Your task to perform on an android device: turn notification dots on Image 0: 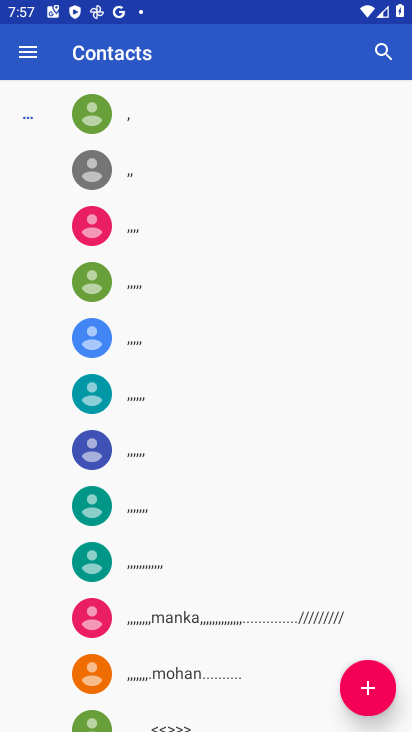
Step 0: press home button
Your task to perform on an android device: turn notification dots on Image 1: 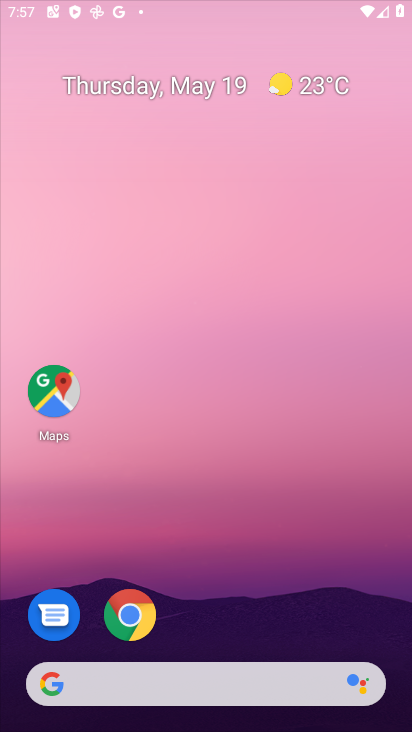
Step 1: drag from (348, 608) to (328, 38)
Your task to perform on an android device: turn notification dots on Image 2: 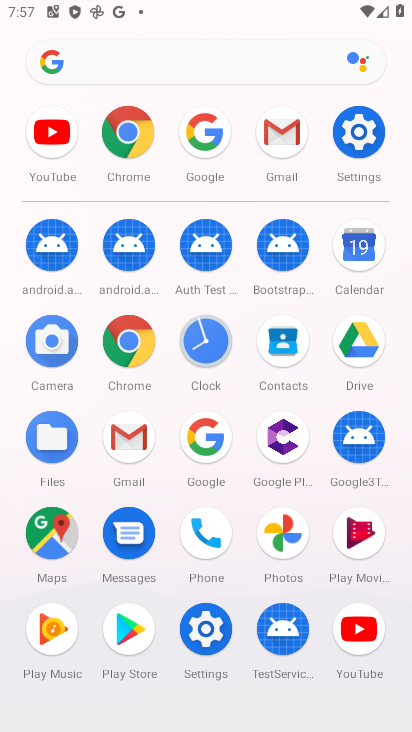
Step 2: click (363, 122)
Your task to perform on an android device: turn notification dots on Image 3: 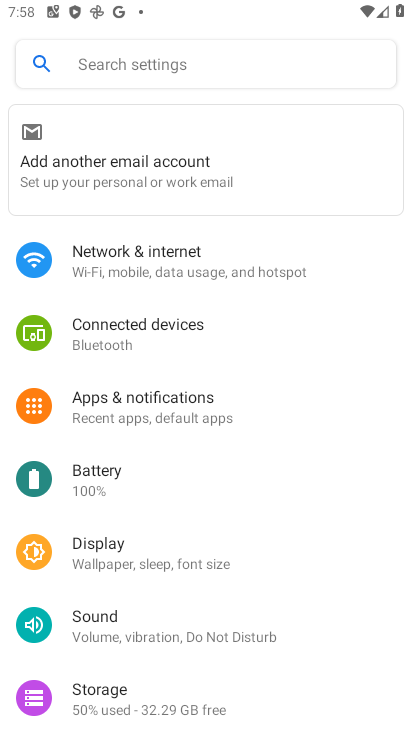
Step 3: click (193, 404)
Your task to perform on an android device: turn notification dots on Image 4: 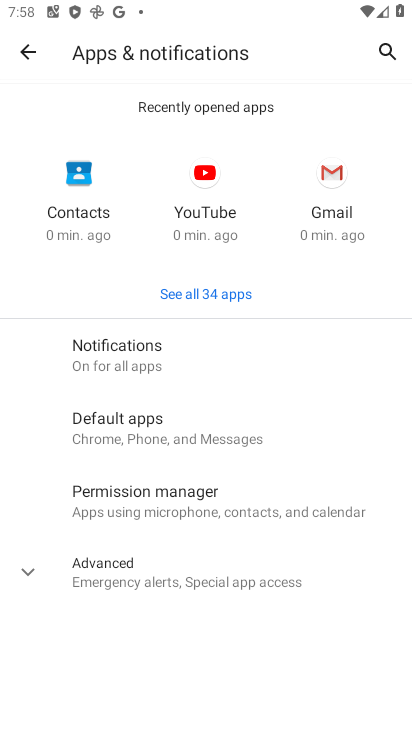
Step 4: click (181, 355)
Your task to perform on an android device: turn notification dots on Image 5: 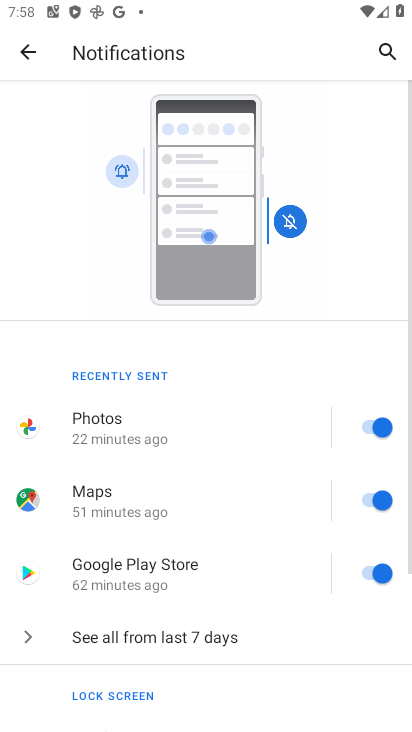
Step 5: drag from (172, 674) to (230, 173)
Your task to perform on an android device: turn notification dots on Image 6: 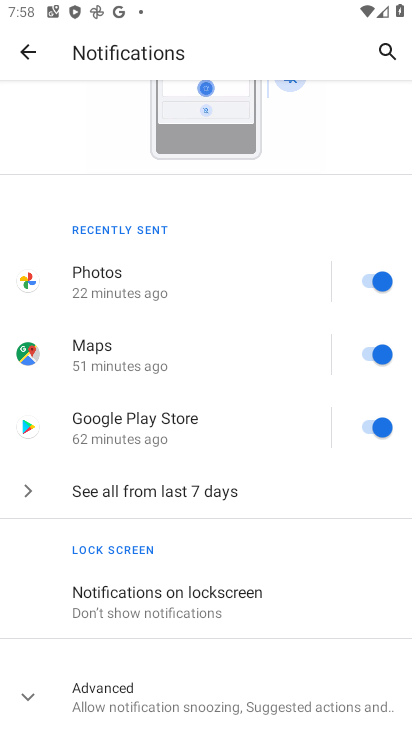
Step 6: click (140, 676)
Your task to perform on an android device: turn notification dots on Image 7: 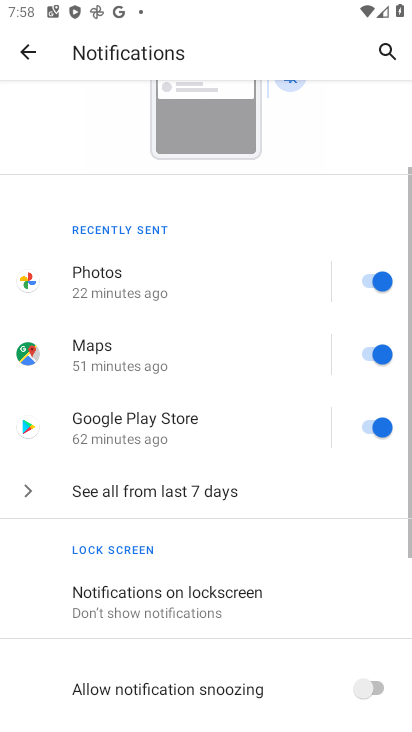
Step 7: drag from (140, 676) to (201, 203)
Your task to perform on an android device: turn notification dots on Image 8: 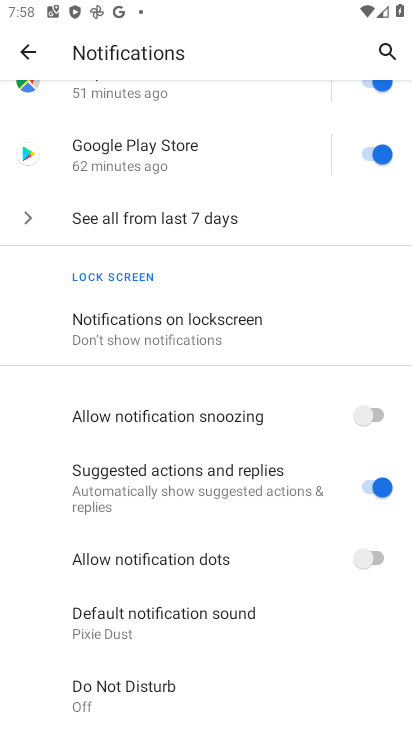
Step 8: click (254, 568)
Your task to perform on an android device: turn notification dots on Image 9: 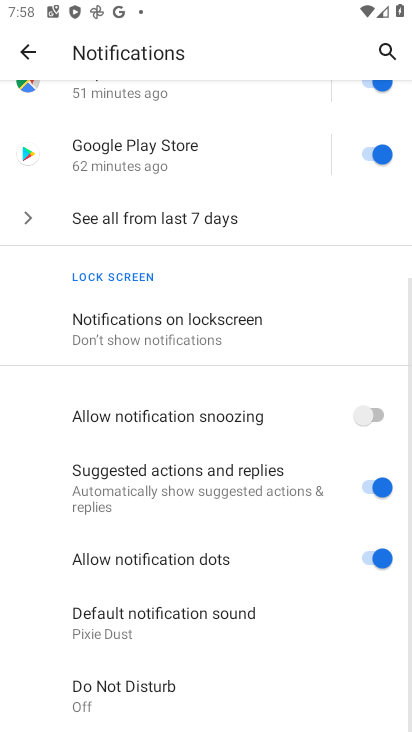
Step 9: task complete